Your task to perform on an android device: Open the calendar app, open the side menu, and click the "Day" option Image 0: 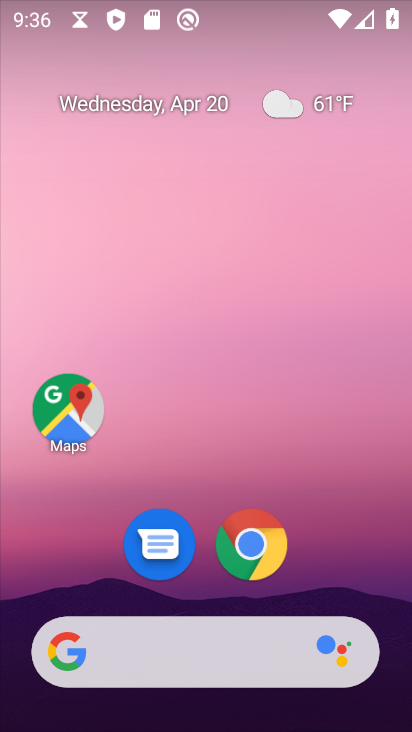
Step 0: drag from (175, 607) to (261, 65)
Your task to perform on an android device: Open the calendar app, open the side menu, and click the "Day" option Image 1: 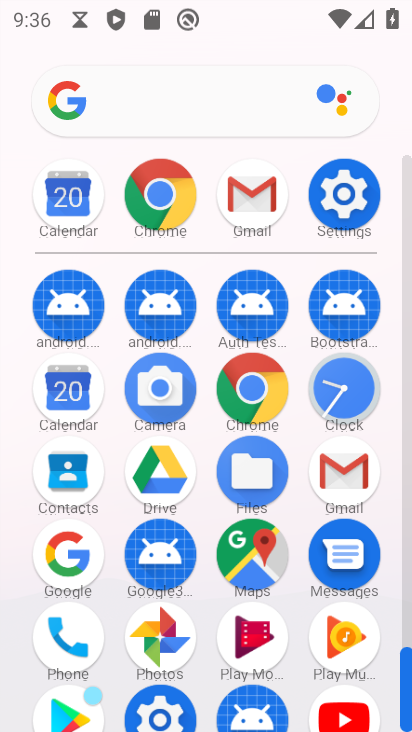
Step 1: click (71, 399)
Your task to perform on an android device: Open the calendar app, open the side menu, and click the "Day" option Image 2: 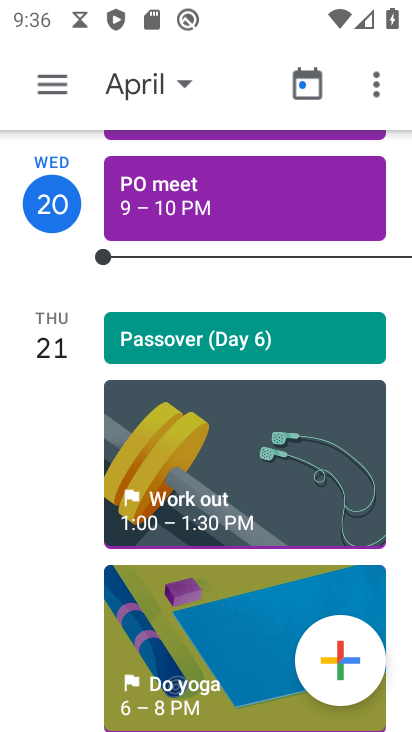
Step 2: click (52, 81)
Your task to perform on an android device: Open the calendar app, open the side menu, and click the "Day" option Image 3: 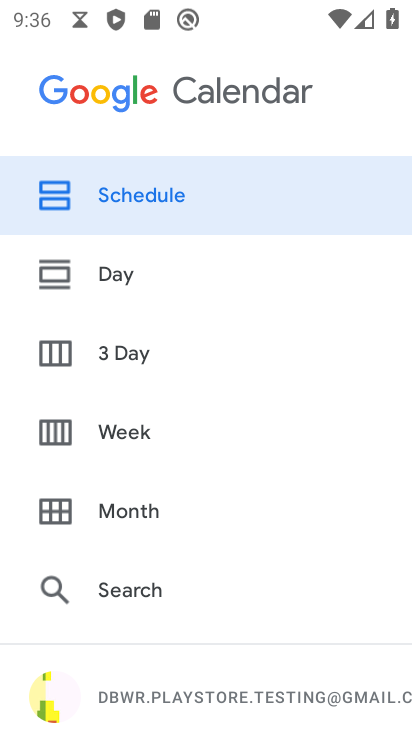
Step 3: click (120, 271)
Your task to perform on an android device: Open the calendar app, open the side menu, and click the "Day" option Image 4: 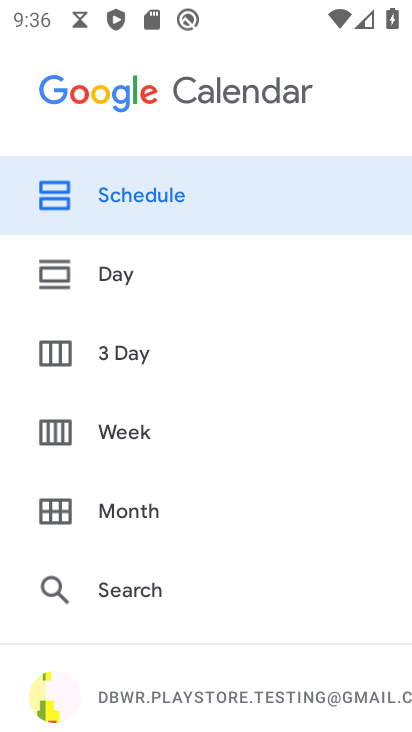
Step 4: click (116, 281)
Your task to perform on an android device: Open the calendar app, open the side menu, and click the "Day" option Image 5: 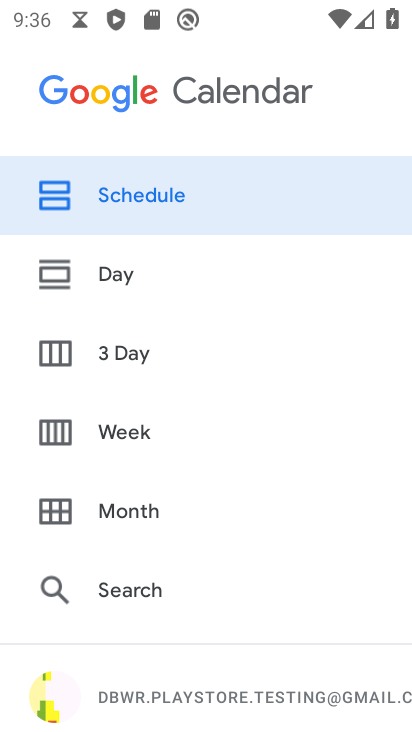
Step 5: click (103, 271)
Your task to perform on an android device: Open the calendar app, open the side menu, and click the "Day" option Image 6: 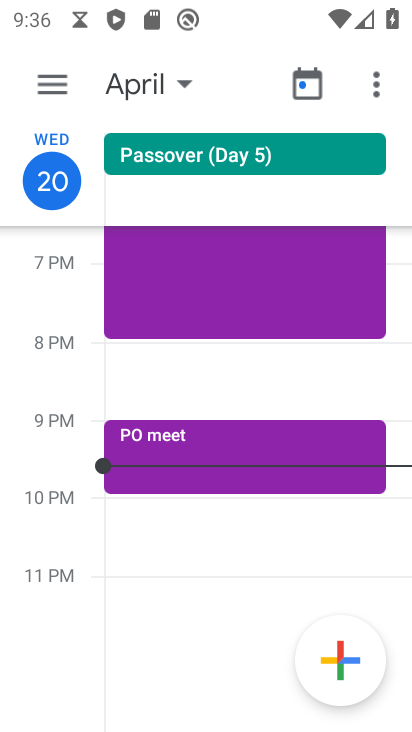
Step 6: task complete